Your task to perform on an android device: Open Google Maps Image 0: 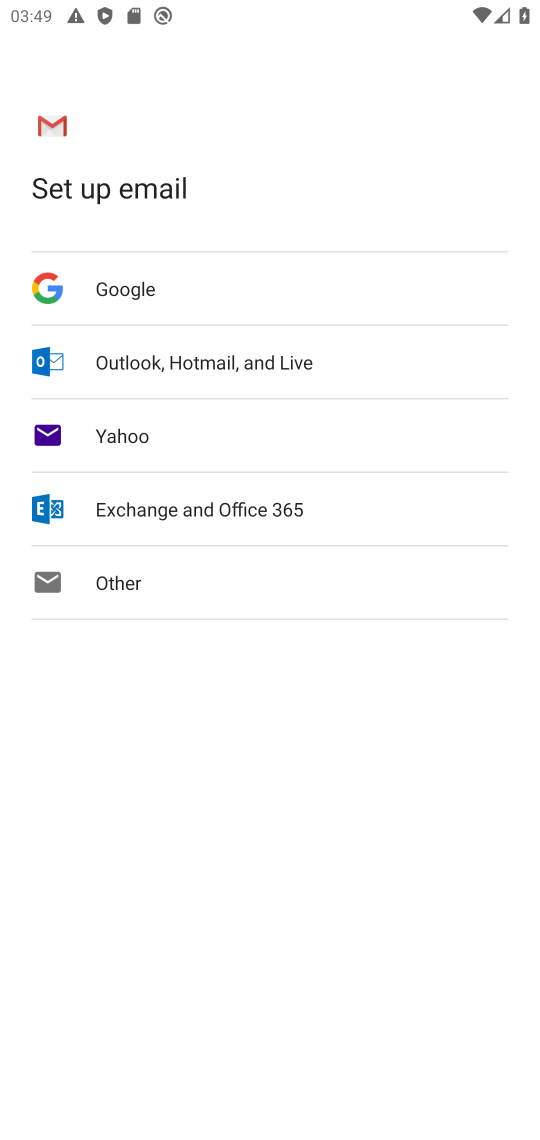
Step 0: press home button
Your task to perform on an android device: Open Google Maps Image 1: 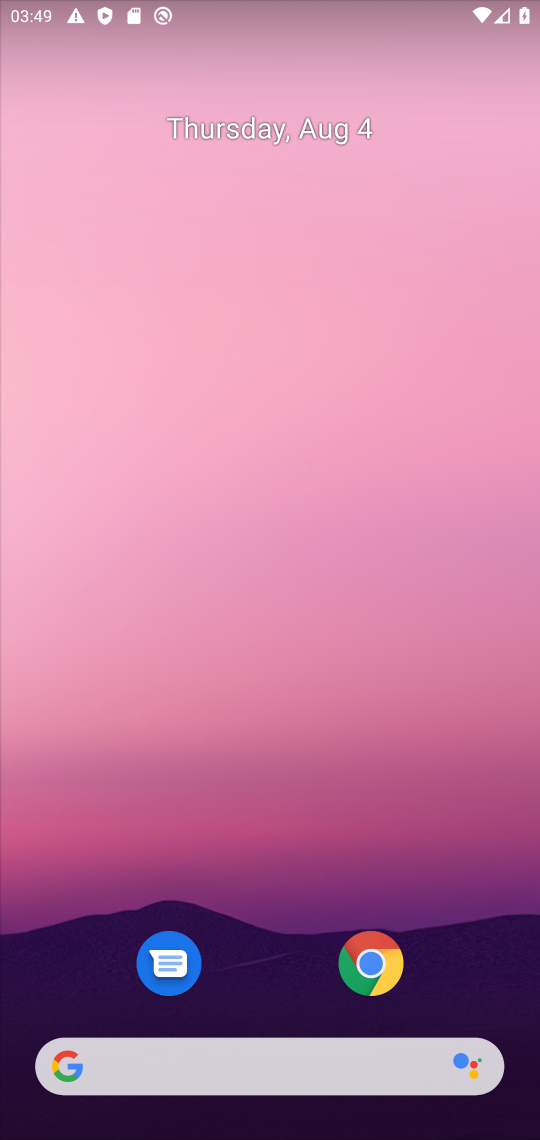
Step 1: drag from (297, 958) to (342, 31)
Your task to perform on an android device: Open Google Maps Image 2: 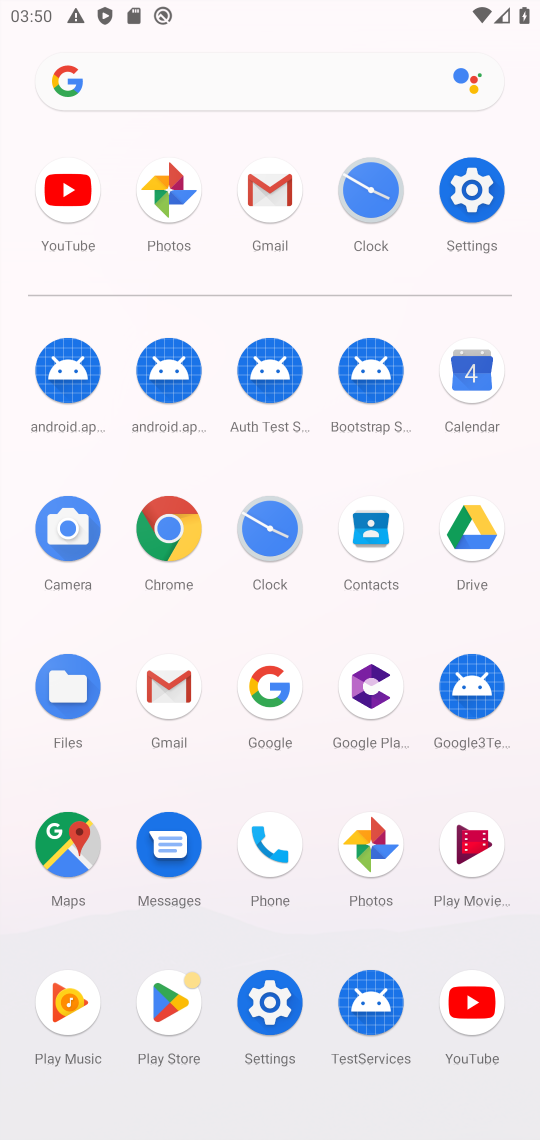
Step 2: click (68, 850)
Your task to perform on an android device: Open Google Maps Image 3: 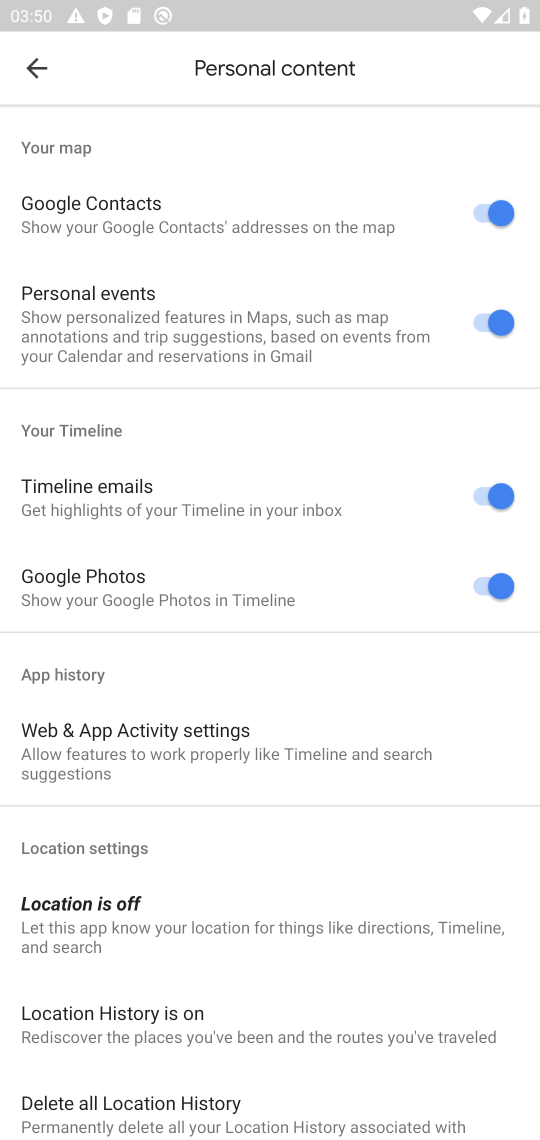
Step 3: task complete